Your task to perform on an android device: delete location history Image 0: 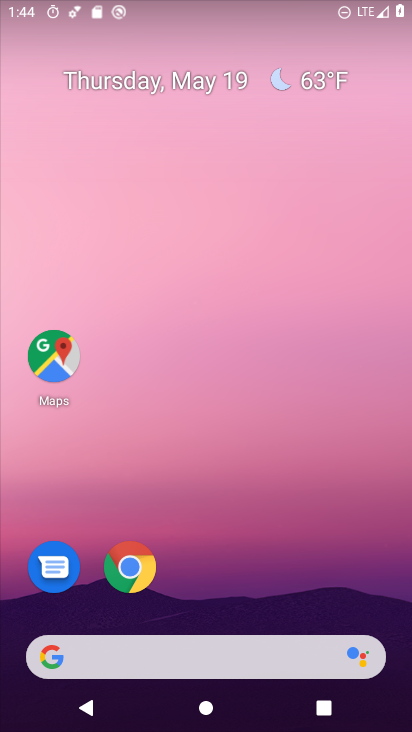
Step 0: press home button
Your task to perform on an android device: delete location history Image 1: 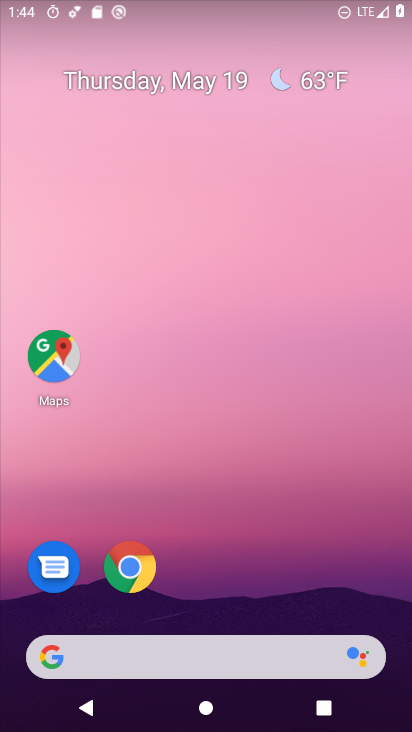
Step 1: drag from (193, 660) to (278, 220)
Your task to perform on an android device: delete location history Image 2: 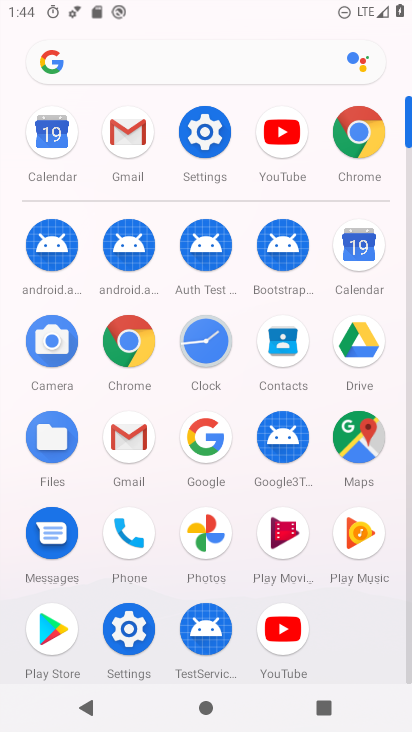
Step 2: click (356, 450)
Your task to perform on an android device: delete location history Image 3: 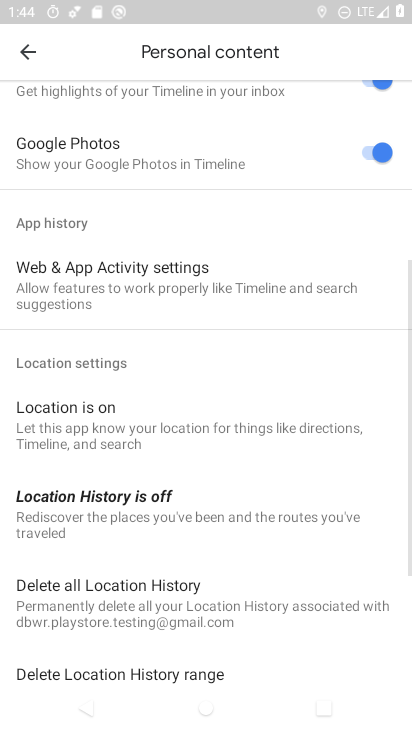
Step 3: click (26, 53)
Your task to perform on an android device: delete location history Image 4: 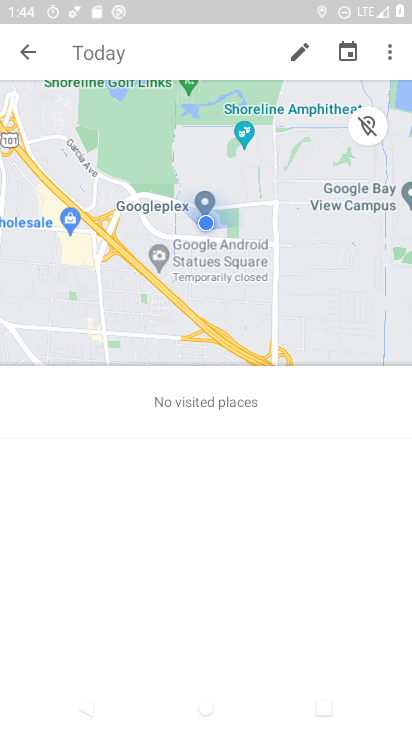
Step 4: click (387, 53)
Your task to perform on an android device: delete location history Image 5: 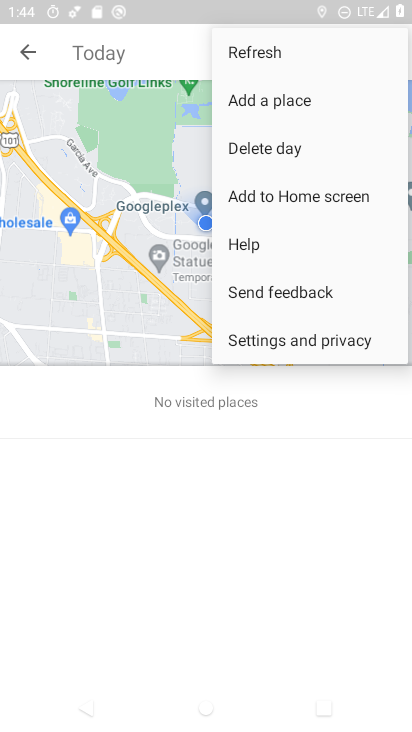
Step 5: click (302, 343)
Your task to perform on an android device: delete location history Image 6: 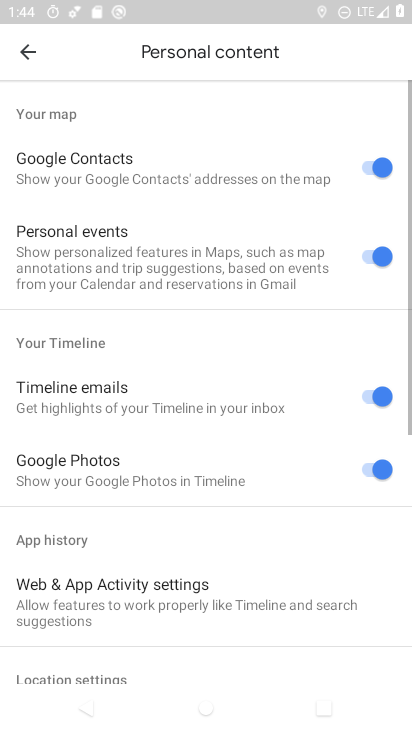
Step 6: drag from (162, 621) to (353, 124)
Your task to perform on an android device: delete location history Image 7: 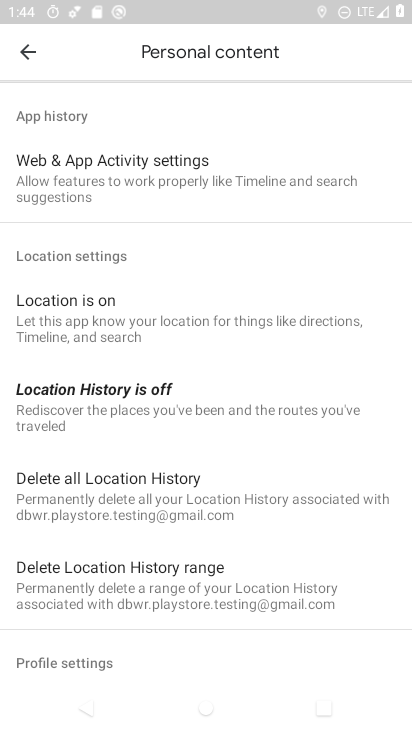
Step 7: click (170, 489)
Your task to perform on an android device: delete location history Image 8: 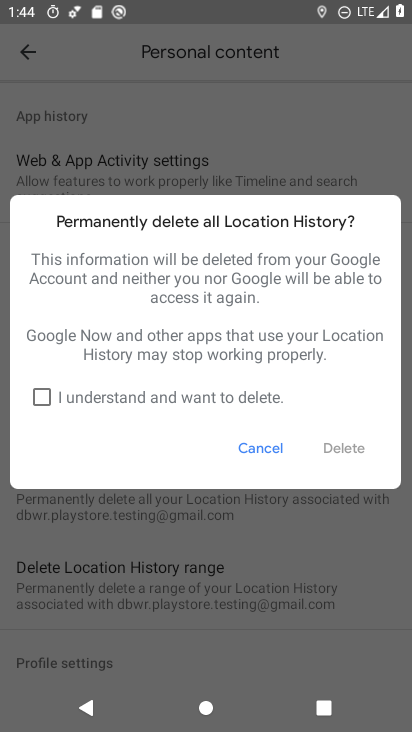
Step 8: click (42, 389)
Your task to perform on an android device: delete location history Image 9: 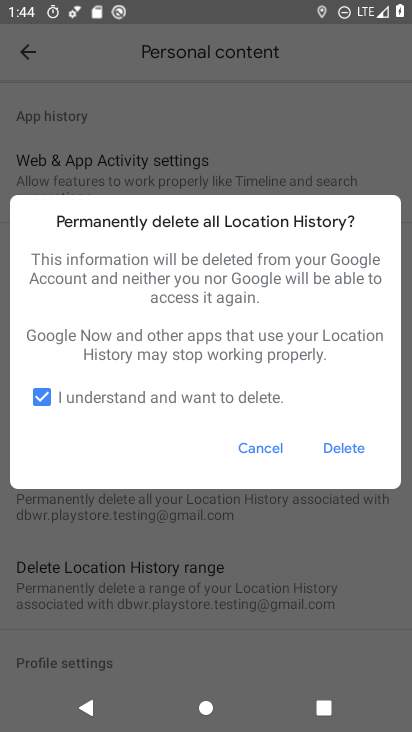
Step 9: click (356, 453)
Your task to perform on an android device: delete location history Image 10: 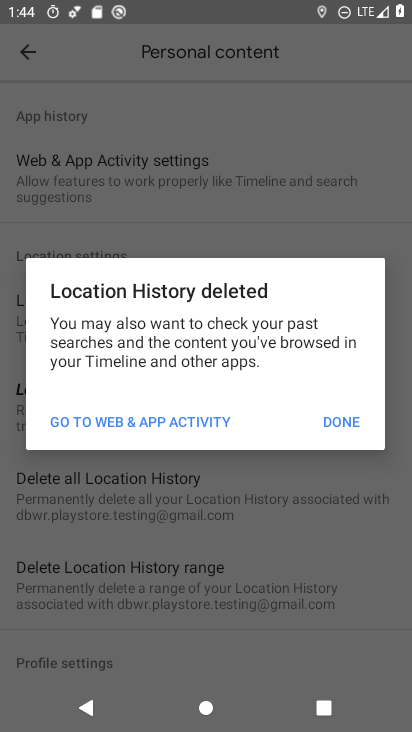
Step 10: click (337, 425)
Your task to perform on an android device: delete location history Image 11: 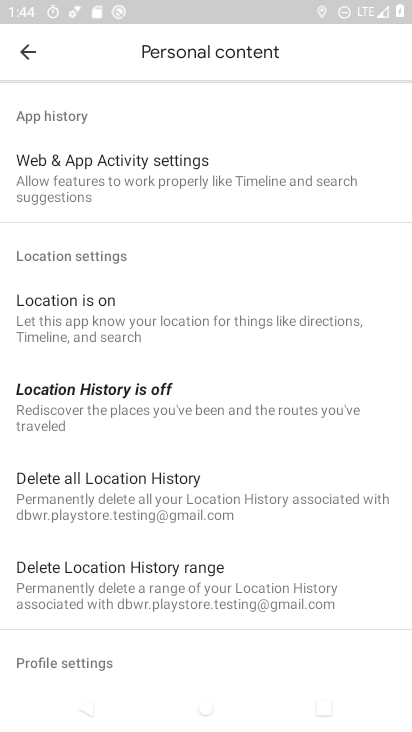
Step 11: task complete